Your task to perform on an android device: set the stopwatch Image 0: 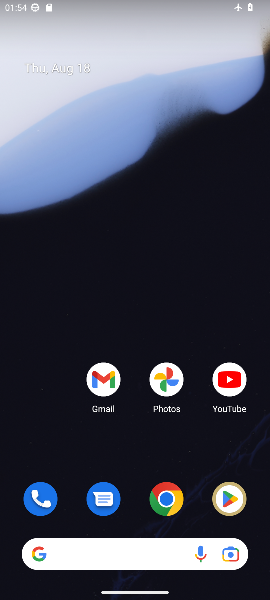
Step 0: drag from (139, 467) to (147, 110)
Your task to perform on an android device: set the stopwatch Image 1: 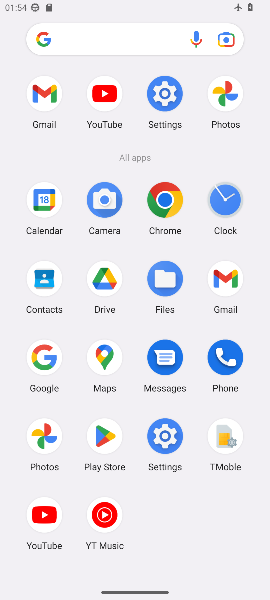
Step 1: click (225, 201)
Your task to perform on an android device: set the stopwatch Image 2: 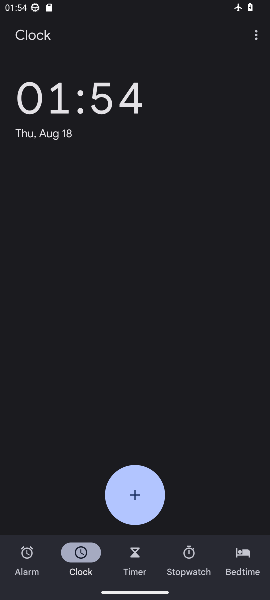
Step 2: click (196, 562)
Your task to perform on an android device: set the stopwatch Image 3: 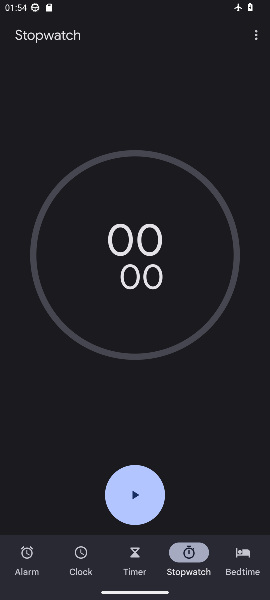
Step 3: task complete